Your task to perform on an android device: Go to Maps Image 0: 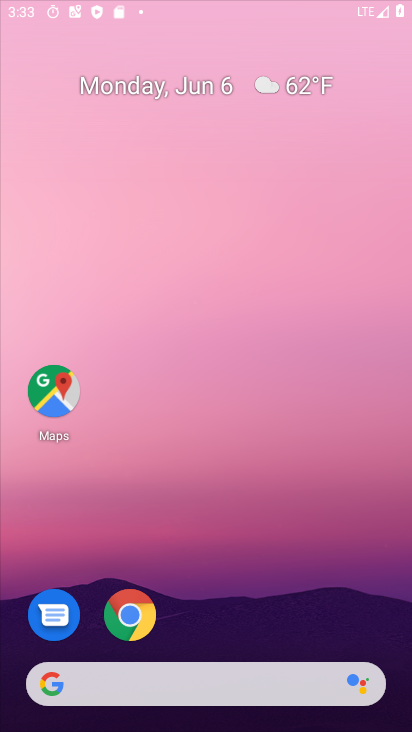
Step 0: drag from (264, 671) to (306, 33)
Your task to perform on an android device: Go to Maps Image 1: 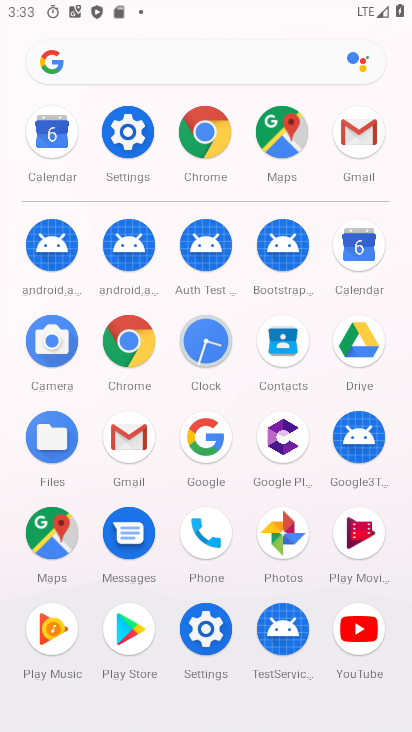
Step 1: click (129, 436)
Your task to perform on an android device: Go to Maps Image 2: 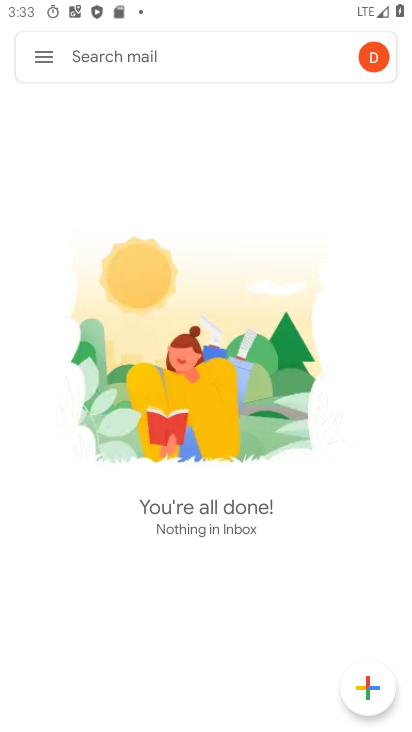
Step 2: press home button
Your task to perform on an android device: Go to Maps Image 3: 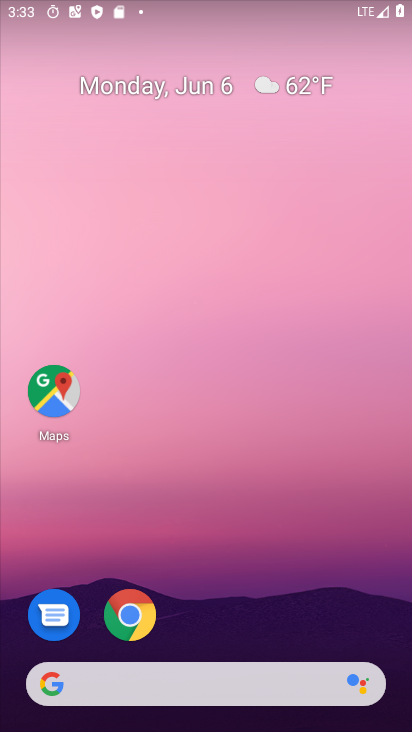
Step 3: drag from (180, 688) to (195, 182)
Your task to perform on an android device: Go to Maps Image 4: 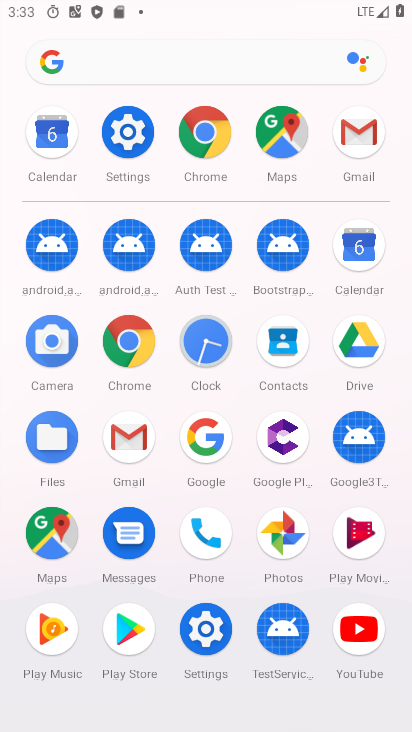
Step 4: click (48, 536)
Your task to perform on an android device: Go to Maps Image 5: 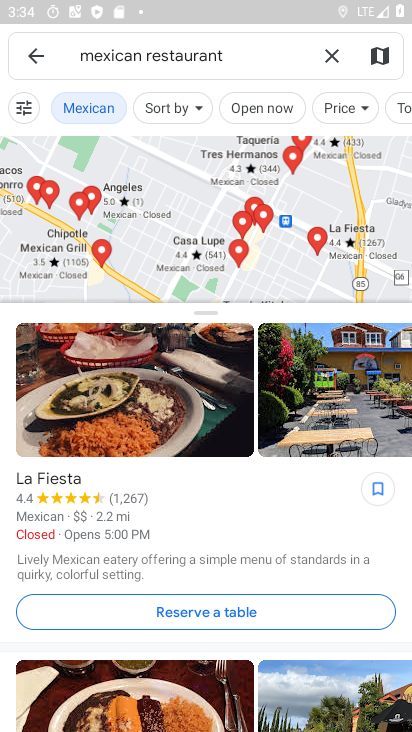
Step 5: task complete